Your task to perform on an android device: toggle translation in the chrome app Image 0: 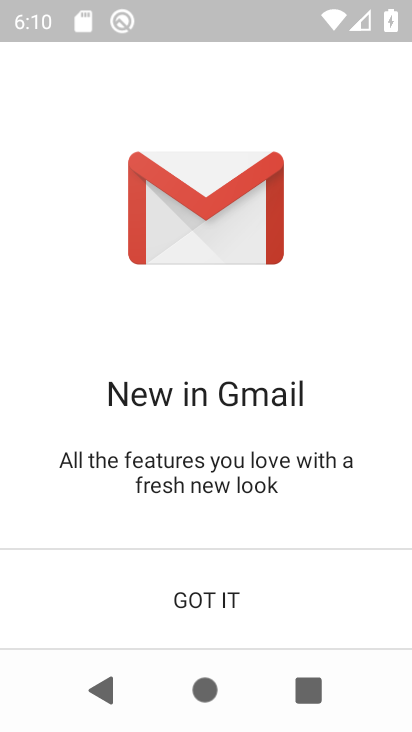
Step 0: press back button
Your task to perform on an android device: toggle translation in the chrome app Image 1: 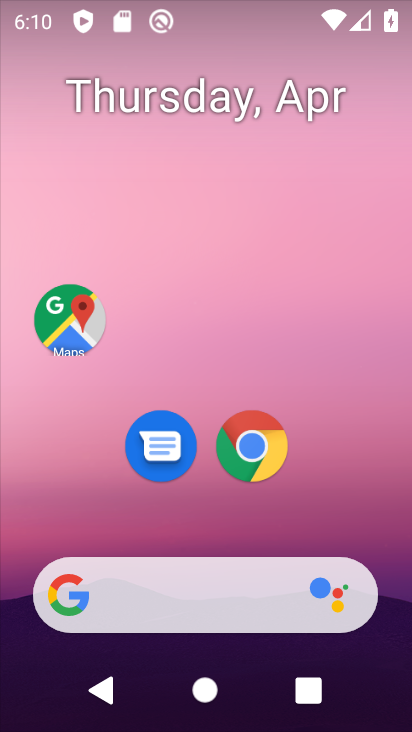
Step 1: click (250, 446)
Your task to perform on an android device: toggle translation in the chrome app Image 2: 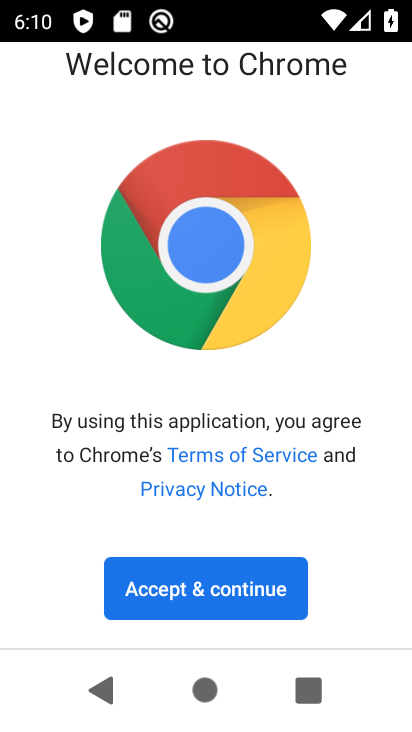
Step 2: click (184, 603)
Your task to perform on an android device: toggle translation in the chrome app Image 3: 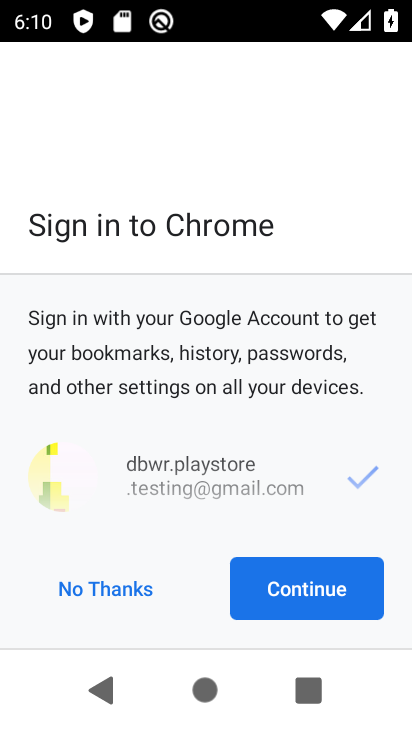
Step 3: click (289, 589)
Your task to perform on an android device: toggle translation in the chrome app Image 4: 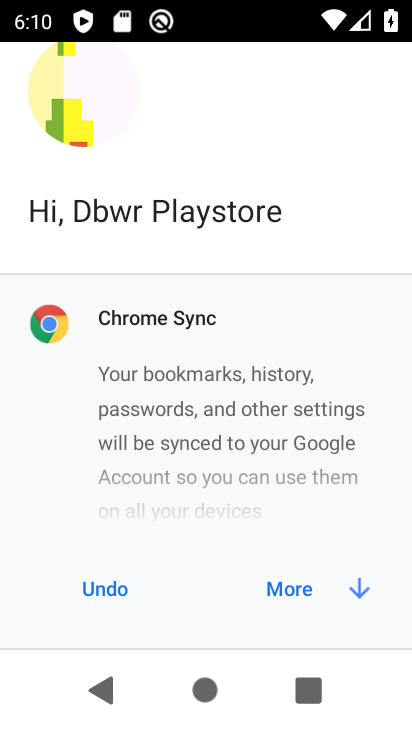
Step 4: click (302, 591)
Your task to perform on an android device: toggle translation in the chrome app Image 5: 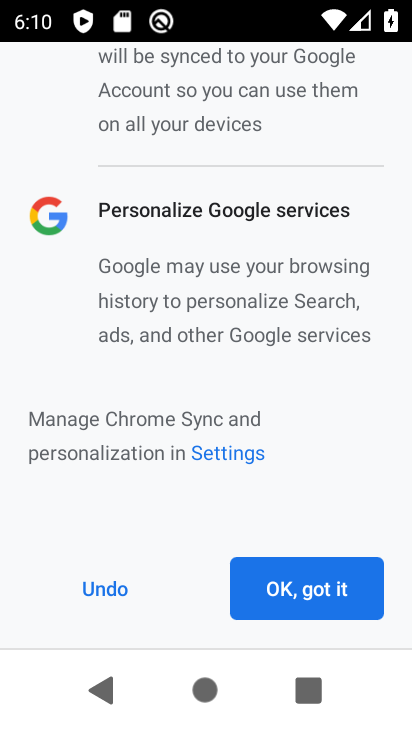
Step 5: click (310, 579)
Your task to perform on an android device: toggle translation in the chrome app Image 6: 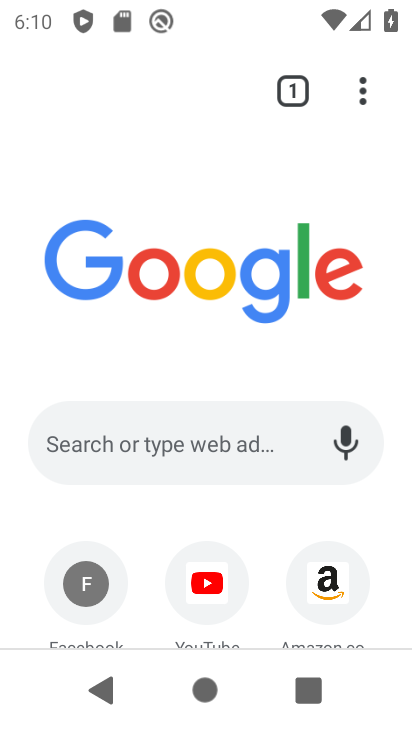
Step 6: drag from (360, 93) to (138, 461)
Your task to perform on an android device: toggle translation in the chrome app Image 7: 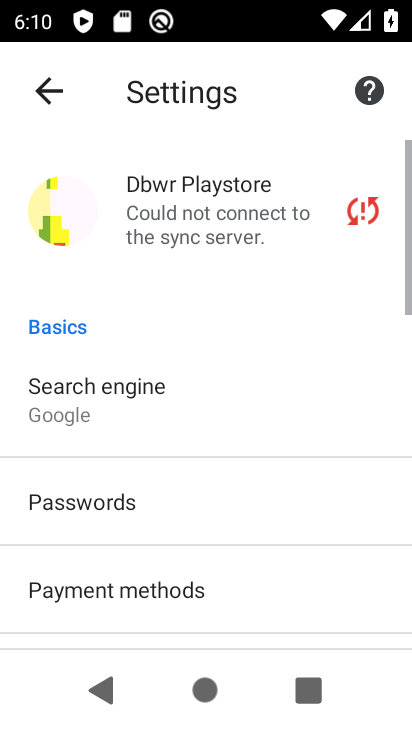
Step 7: drag from (149, 551) to (250, 13)
Your task to perform on an android device: toggle translation in the chrome app Image 8: 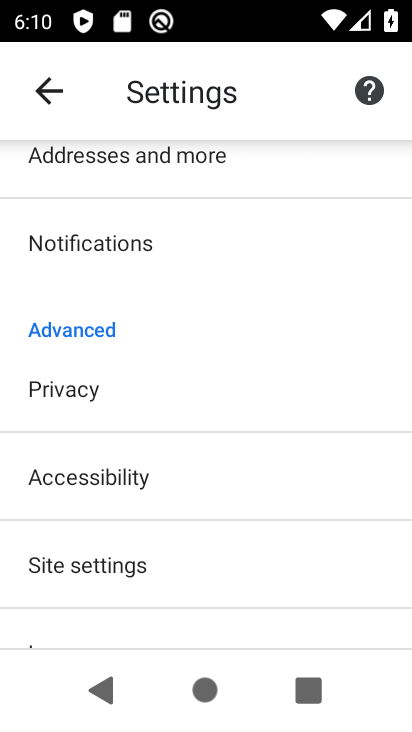
Step 8: drag from (138, 462) to (253, 80)
Your task to perform on an android device: toggle translation in the chrome app Image 9: 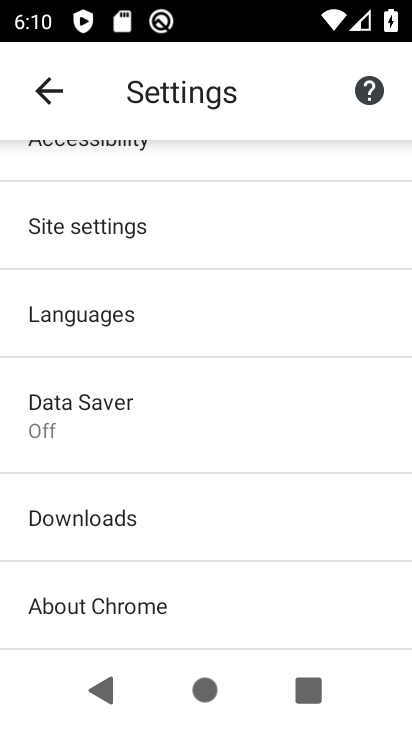
Step 9: click (114, 313)
Your task to perform on an android device: toggle translation in the chrome app Image 10: 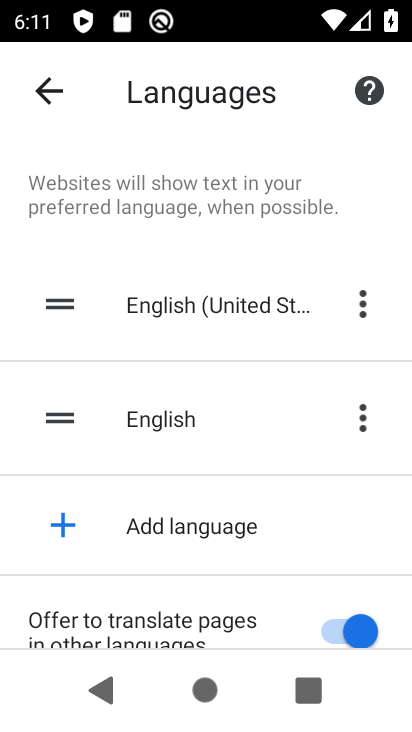
Step 10: click (339, 624)
Your task to perform on an android device: toggle translation in the chrome app Image 11: 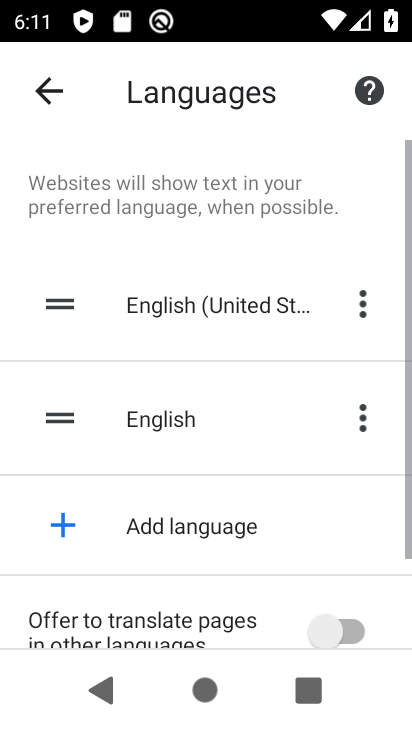
Step 11: task complete